Your task to perform on an android device: Go to Wikipedia Image 0: 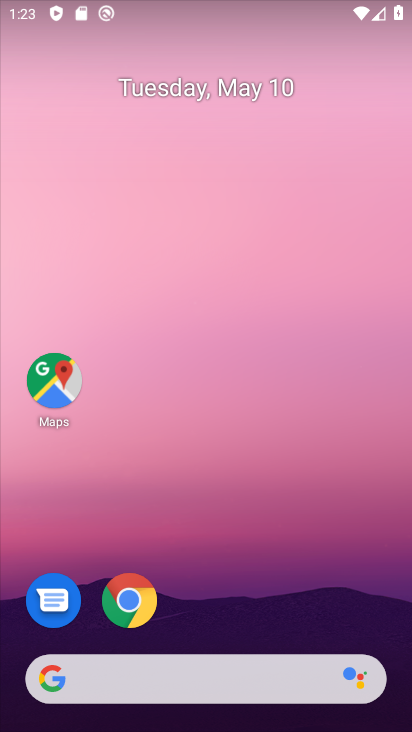
Step 0: drag from (215, 645) to (162, 8)
Your task to perform on an android device: Go to Wikipedia Image 1: 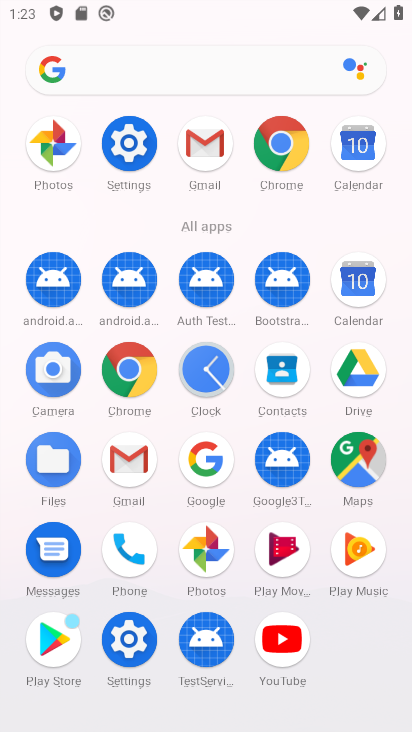
Step 1: click (130, 378)
Your task to perform on an android device: Go to Wikipedia Image 2: 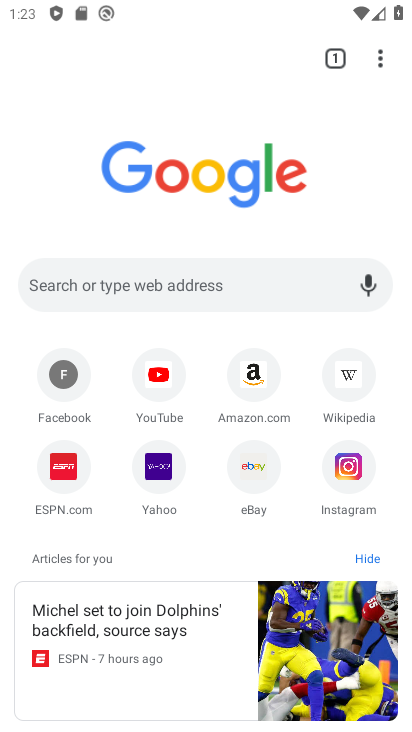
Step 2: click (344, 383)
Your task to perform on an android device: Go to Wikipedia Image 3: 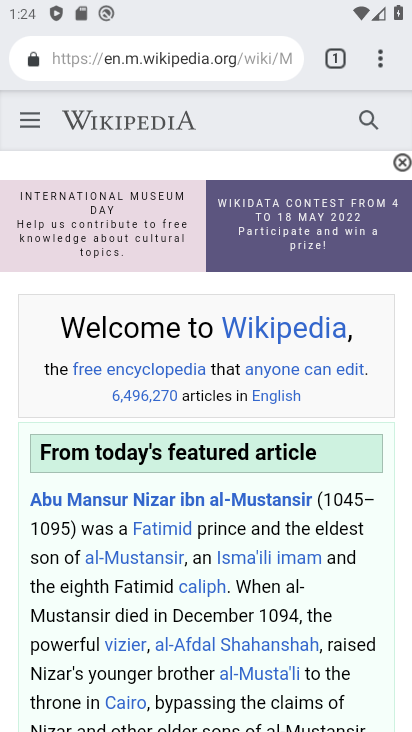
Step 3: task complete